Your task to perform on an android device: toggle airplane mode Image 0: 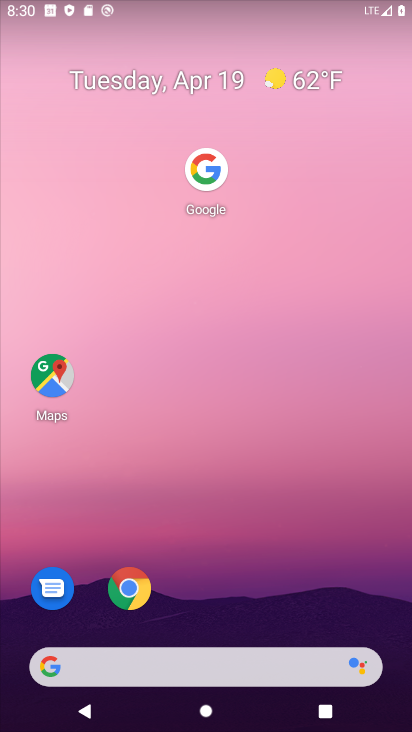
Step 0: drag from (229, 577) to (259, 0)
Your task to perform on an android device: toggle airplane mode Image 1: 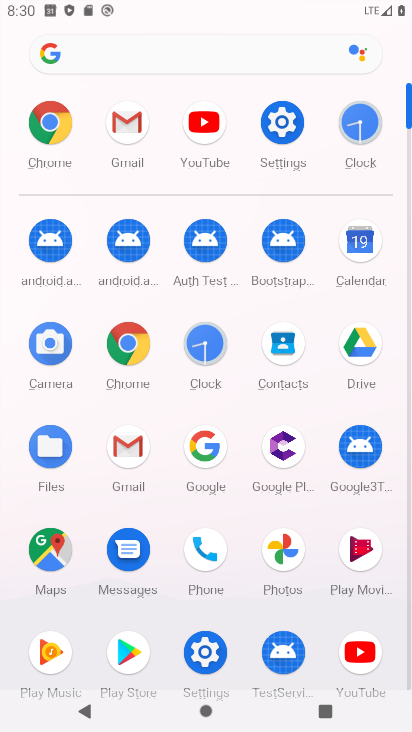
Step 1: click (286, 126)
Your task to perform on an android device: toggle airplane mode Image 2: 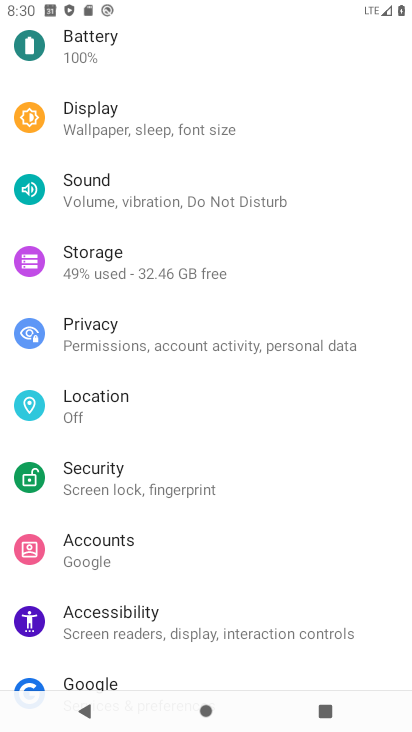
Step 2: drag from (175, 84) to (156, 544)
Your task to perform on an android device: toggle airplane mode Image 3: 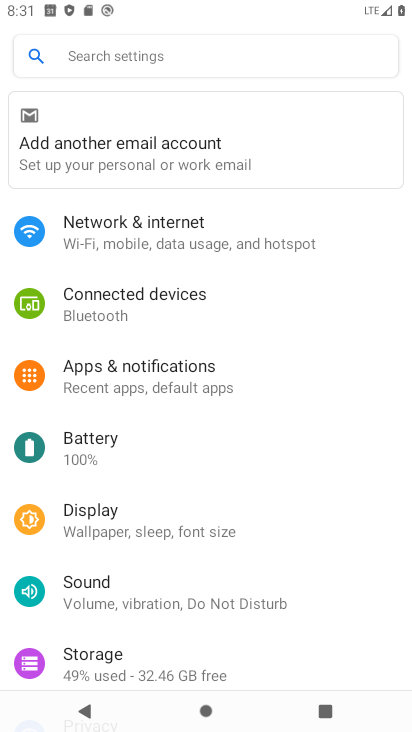
Step 3: click (120, 232)
Your task to perform on an android device: toggle airplane mode Image 4: 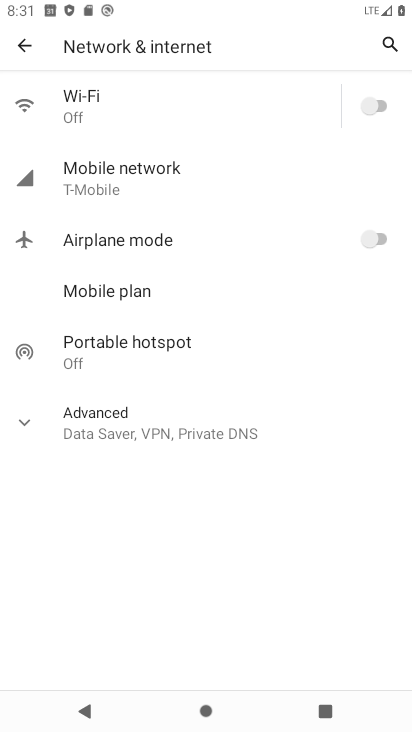
Step 4: click (375, 240)
Your task to perform on an android device: toggle airplane mode Image 5: 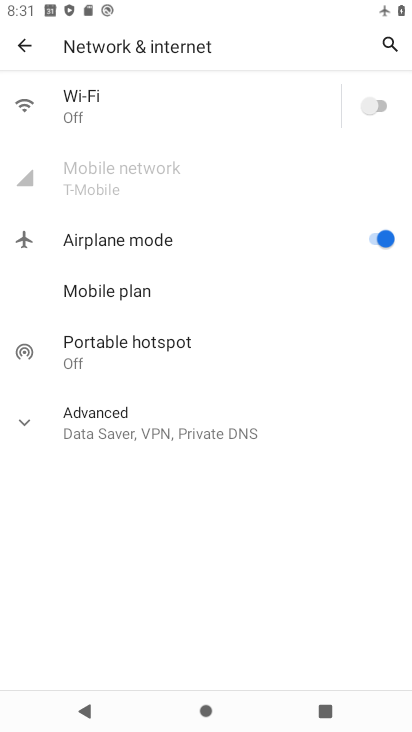
Step 5: task complete